Your task to perform on an android device: turn on notifications settings in the gmail app Image 0: 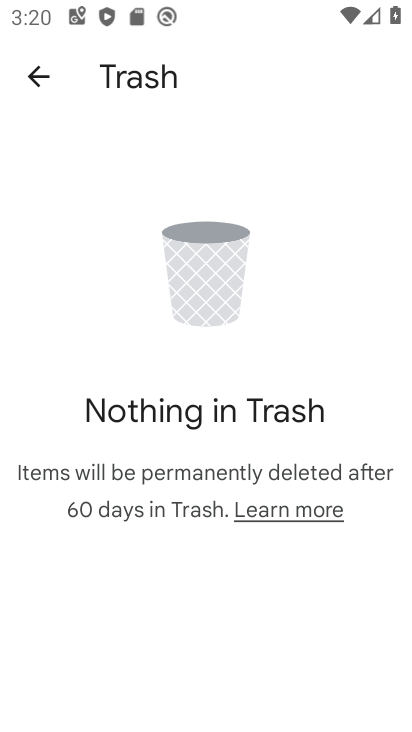
Step 0: press home button
Your task to perform on an android device: turn on notifications settings in the gmail app Image 1: 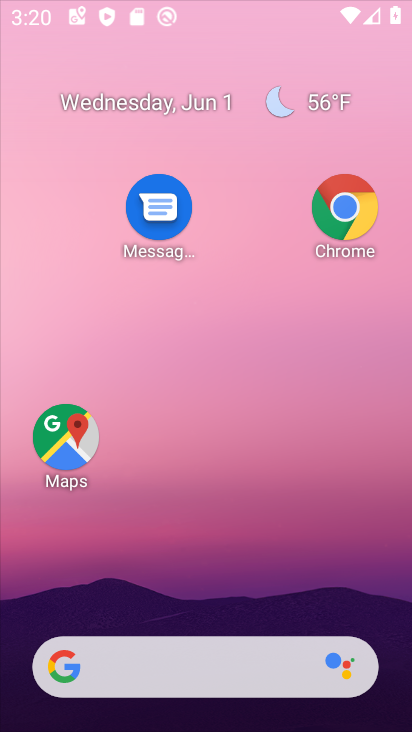
Step 1: drag from (178, 564) to (214, 125)
Your task to perform on an android device: turn on notifications settings in the gmail app Image 2: 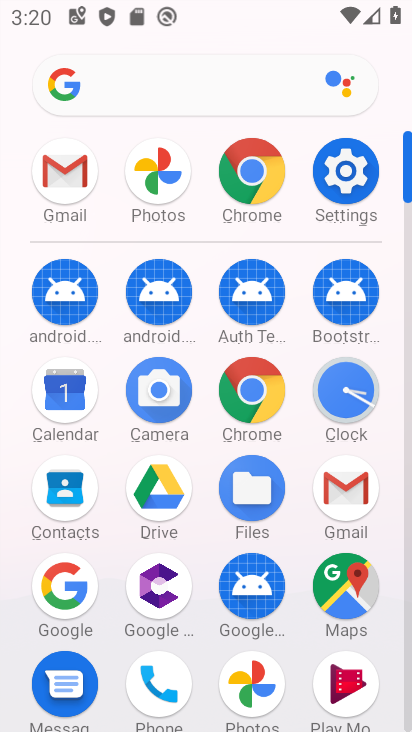
Step 2: click (340, 484)
Your task to perform on an android device: turn on notifications settings in the gmail app Image 3: 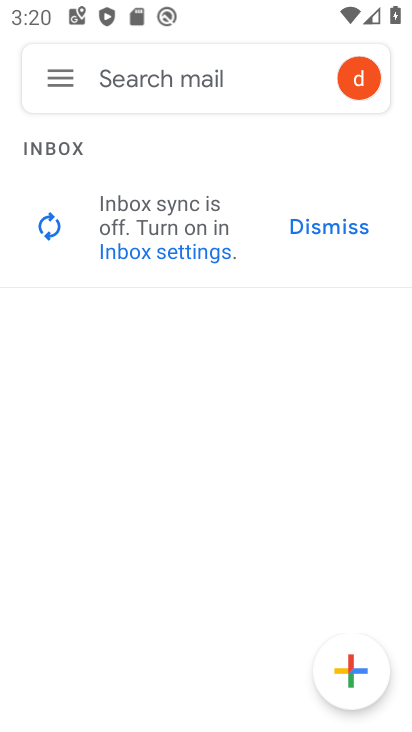
Step 3: click (50, 68)
Your task to perform on an android device: turn on notifications settings in the gmail app Image 4: 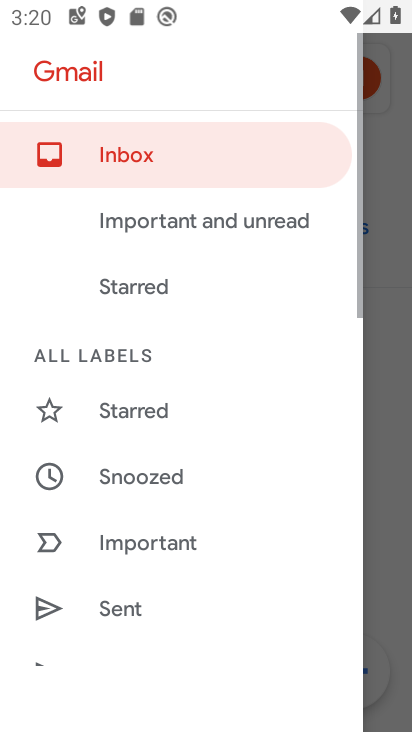
Step 4: drag from (186, 513) to (220, 57)
Your task to perform on an android device: turn on notifications settings in the gmail app Image 5: 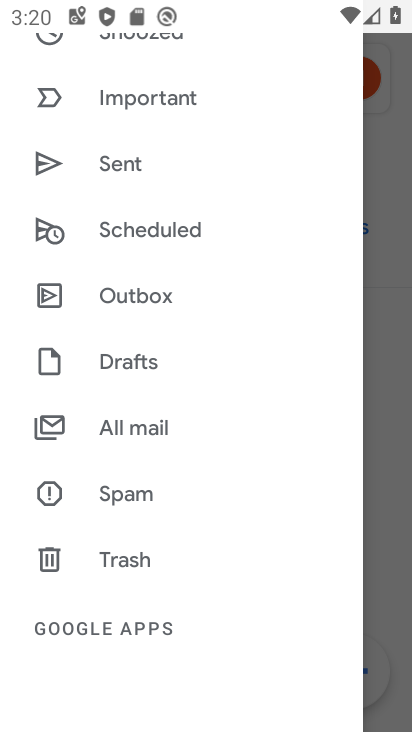
Step 5: drag from (159, 532) to (226, 137)
Your task to perform on an android device: turn on notifications settings in the gmail app Image 6: 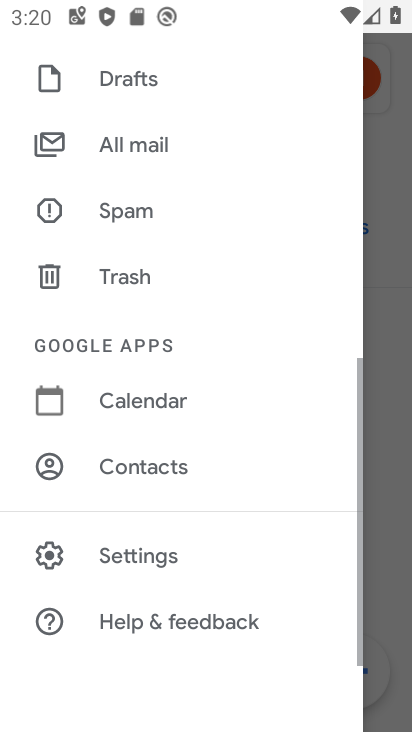
Step 6: click (159, 551)
Your task to perform on an android device: turn on notifications settings in the gmail app Image 7: 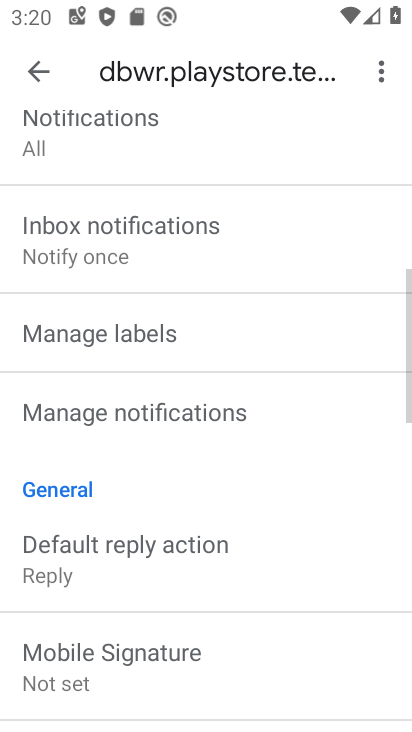
Step 7: click (172, 404)
Your task to perform on an android device: turn on notifications settings in the gmail app Image 8: 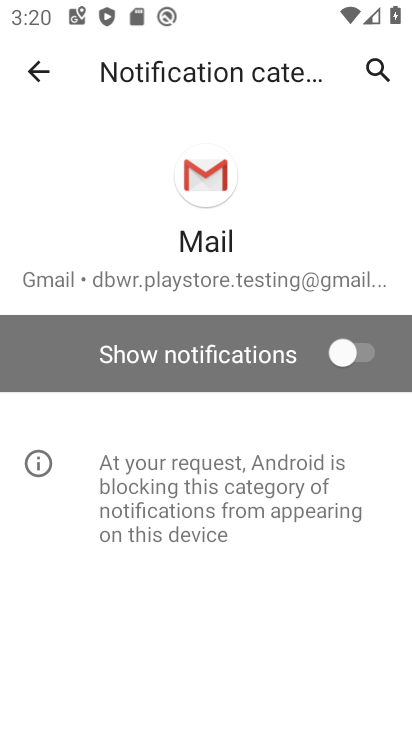
Step 8: click (280, 360)
Your task to perform on an android device: turn on notifications settings in the gmail app Image 9: 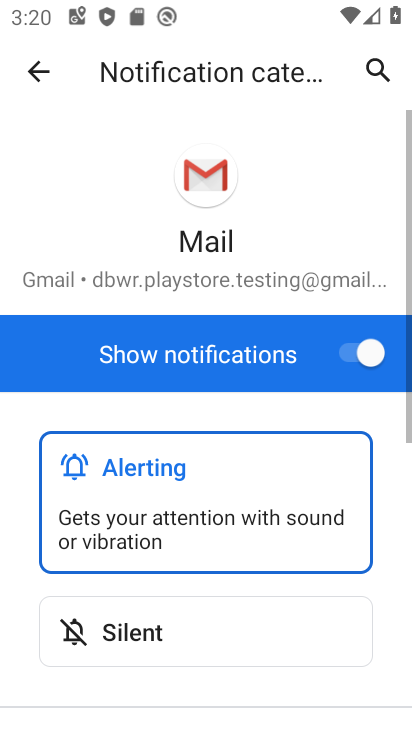
Step 9: task complete